Your task to perform on an android device: Open Google Chrome and click the shortcut for Amazon.com Image 0: 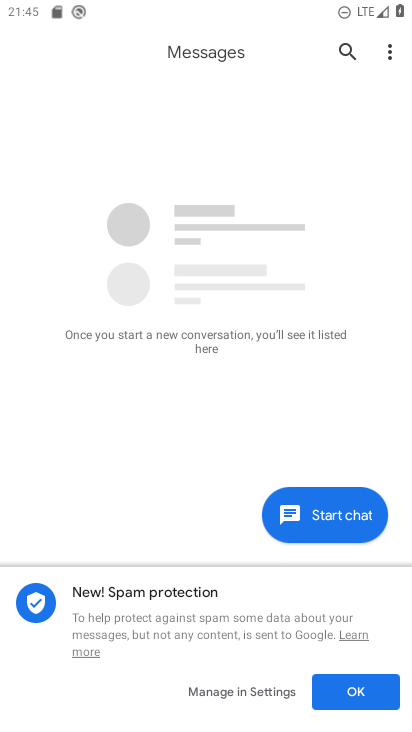
Step 0: press home button
Your task to perform on an android device: Open Google Chrome and click the shortcut for Amazon.com Image 1: 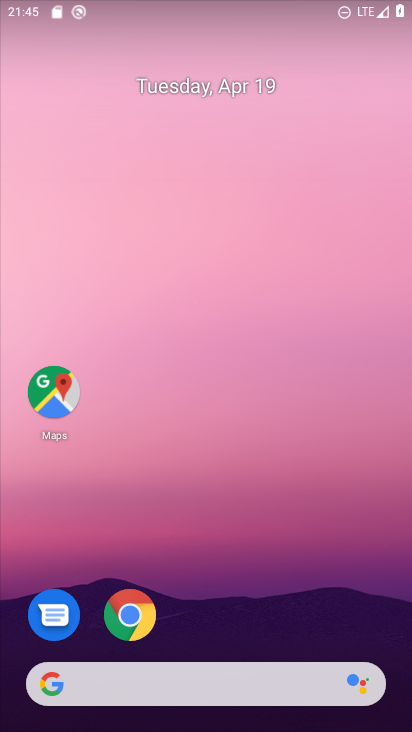
Step 1: click (118, 609)
Your task to perform on an android device: Open Google Chrome and click the shortcut for Amazon.com Image 2: 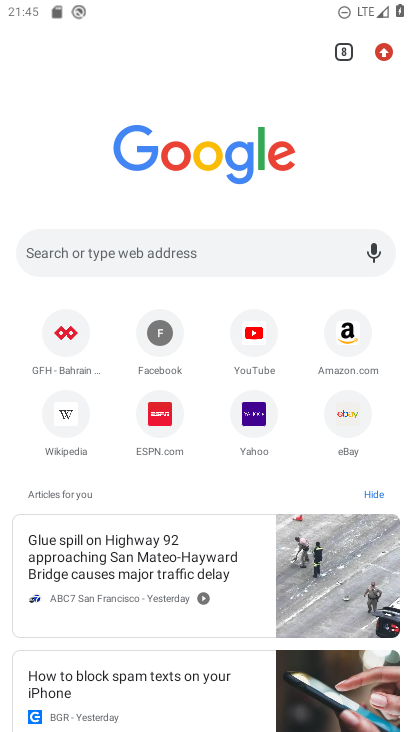
Step 2: click (355, 337)
Your task to perform on an android device: Open Google Chrome and click the shortcut for Amazon.com Image 3: 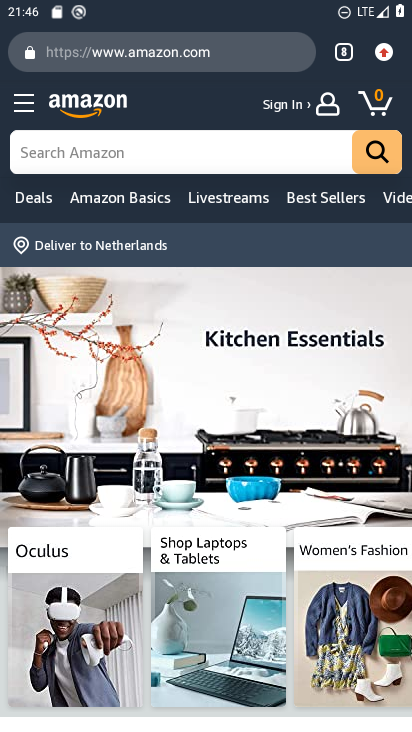
Step 3: task complete